Your task to perform on an android device: Show me popular videos on Youtube Image 0: 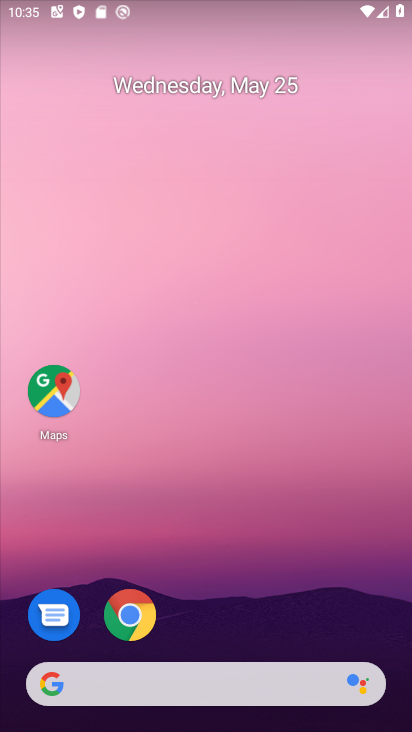
Step 0: drag from (250, 634) to (251, 0)
Your task to perform on an android device: Show me popular videos on Youtube Image 1: 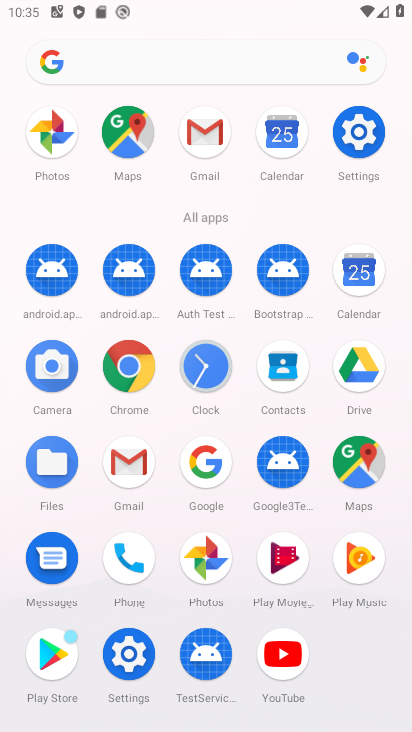
Step 1: click (276, 659)
Your task to perform on an android device: Show me popular videos on Youtube Image 2: 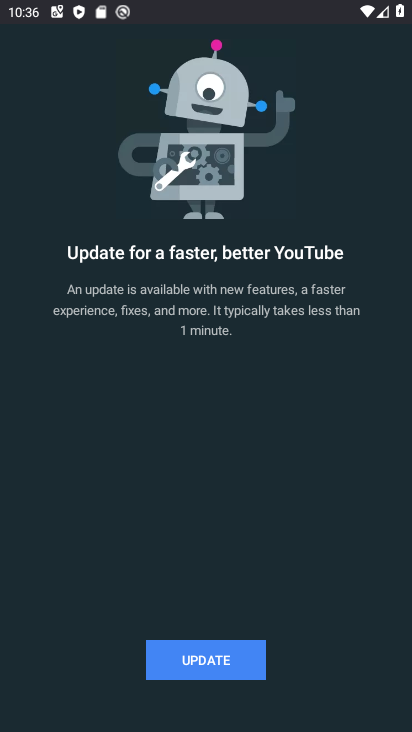
Step 2: click (223, 662)
Your task to perform on an android device: Show me popular videos on Youtube Image 3: 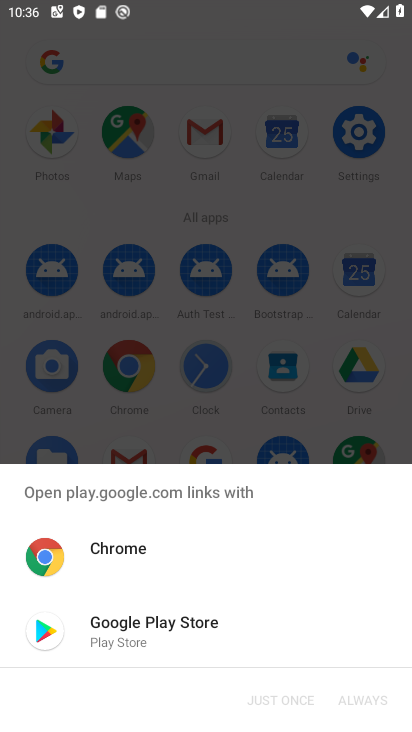
Step 3: click (138, 636)
Your task to perform on an android device: Show me popular videos on Youtube Image 4: 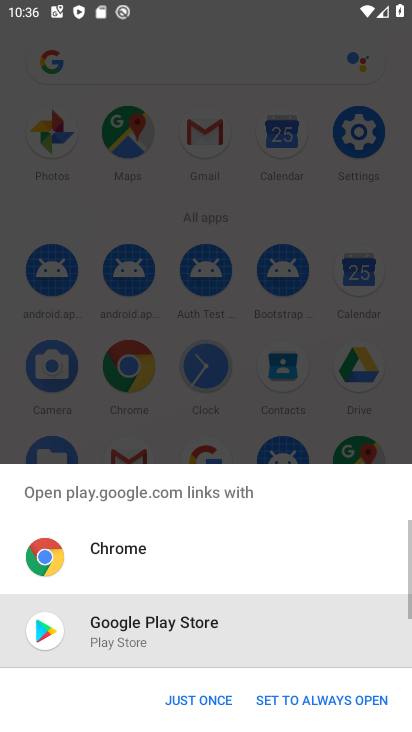
Step 4: click (182, 692)
Your task to perform on an android device: Show me popular videos on Youtube Image 5: 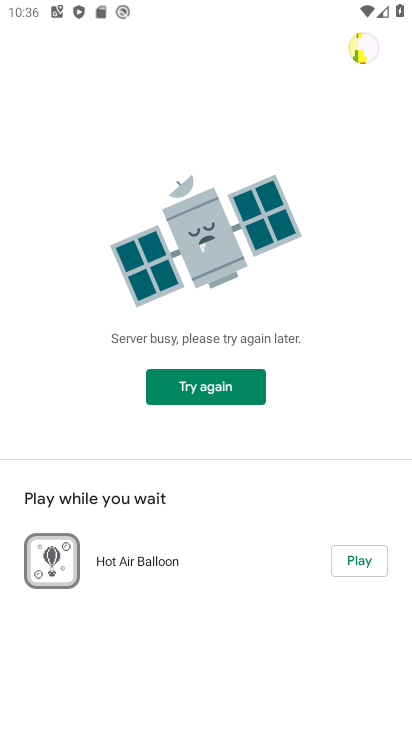
Step 5: click (198, 380)
Your task to perform on an android device: Show me popular videos on Youtube Image 6: 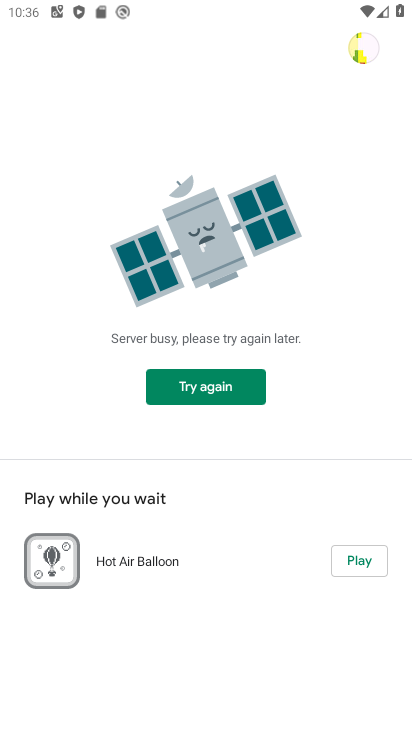
Step 6: click (198, 379)
Your task to perform on an android device: Show me popular videos on Youtube Image 7: 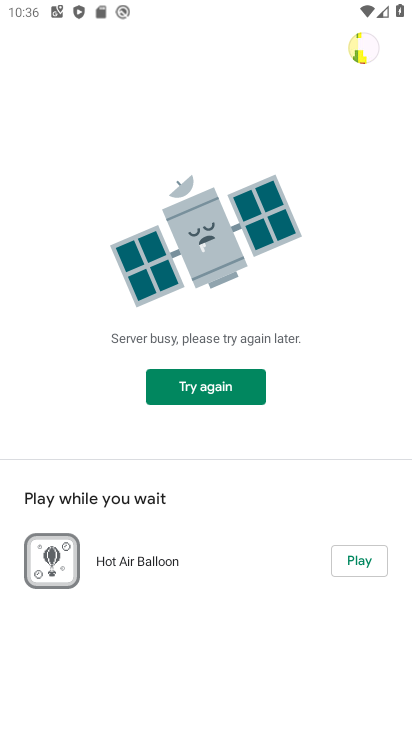
Step 7: task complete